Your task to perform on an android device: turn on showing notifications on the lock screen Image 0: 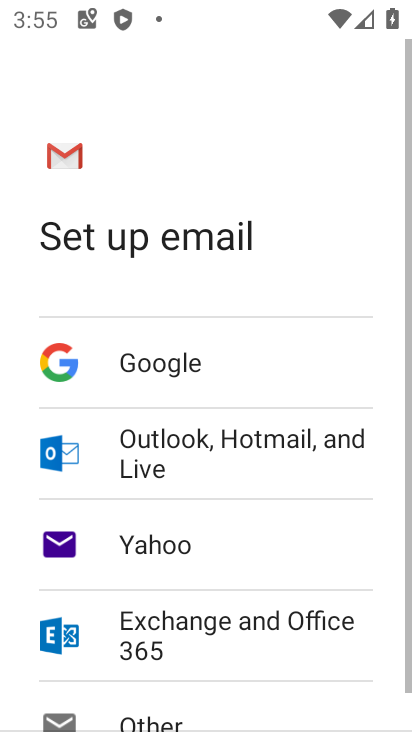
Step 0: press home button
Your task to perform on an android device: turn on showing notifications on the lock screen Image 1: 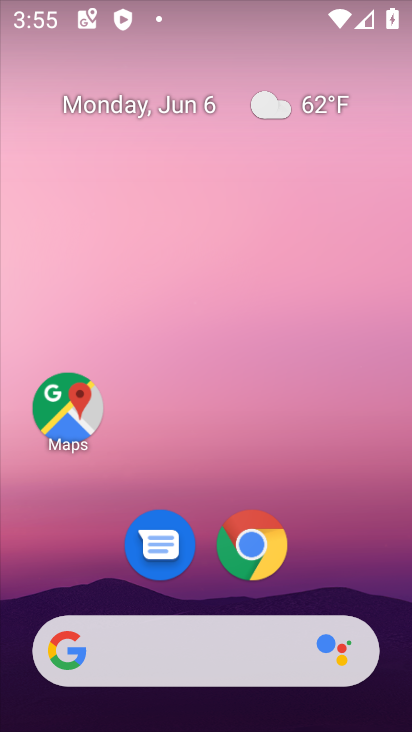
Step 1: drag from (193, 711) to (204, 63)
Your task to perform on an android device: turn on showing notifications on the lock screen Image 2: 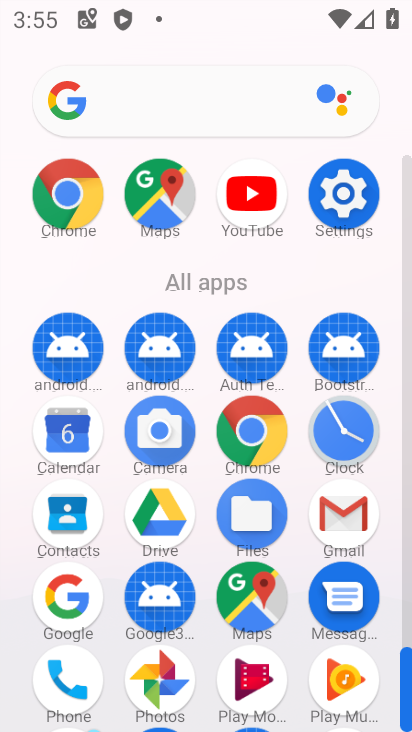
Step 2: click (338, 193)
Your task to perform on an android device: turn on showing notifications on the lock screen Image 3: 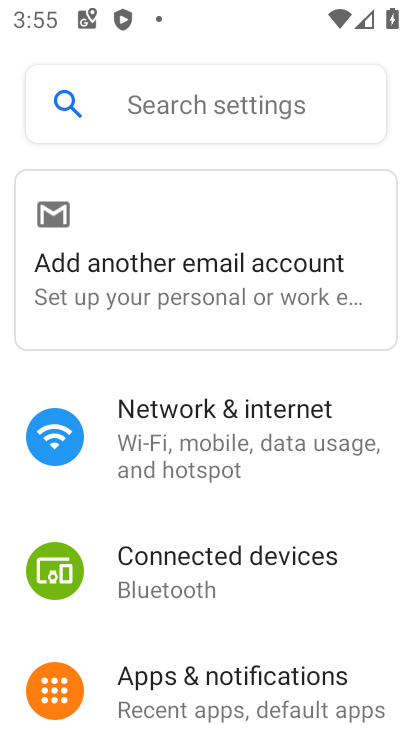
Step 3: click (220, 685)
Your task to perform on an android device: turn on showing notifications on the lock screen Image 4: 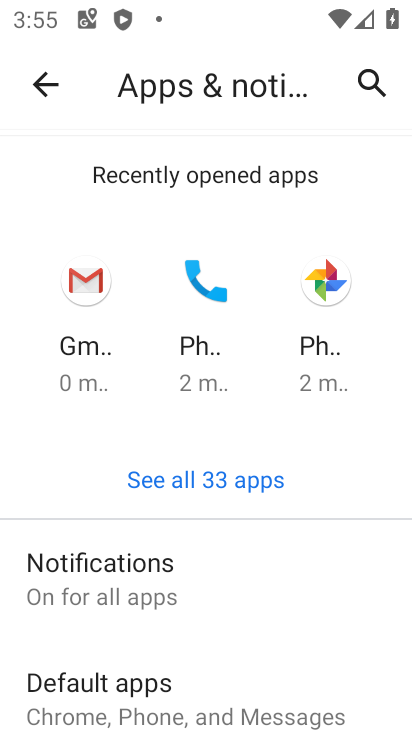
Step 4: click (122, 580)
Your task to perform on an android device: turn on showing notifications on the lock screen Image 5: 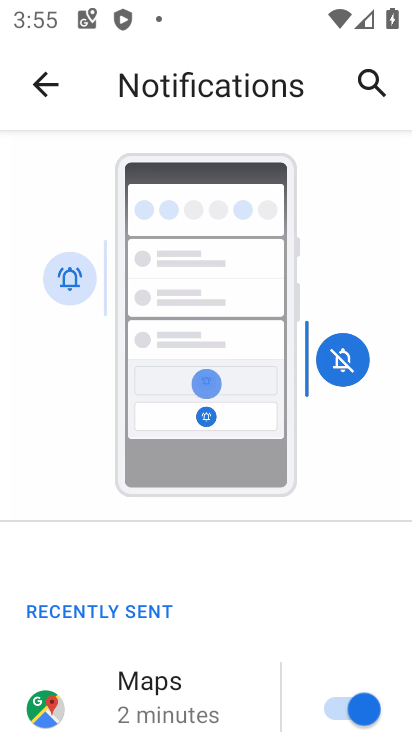
Step 5: drag from (231, 693) to (216, 293)
Your task to perform on an android device: turn on showing notifications on the lock screen Image 6: 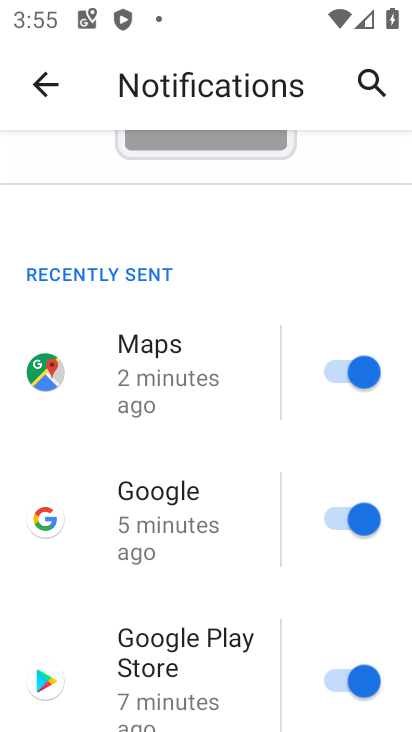
Step 6: drag from (198, 723) to (202, 261)
Your task to perform on an android device: turn on showing notifications on the lock screen Image 7: 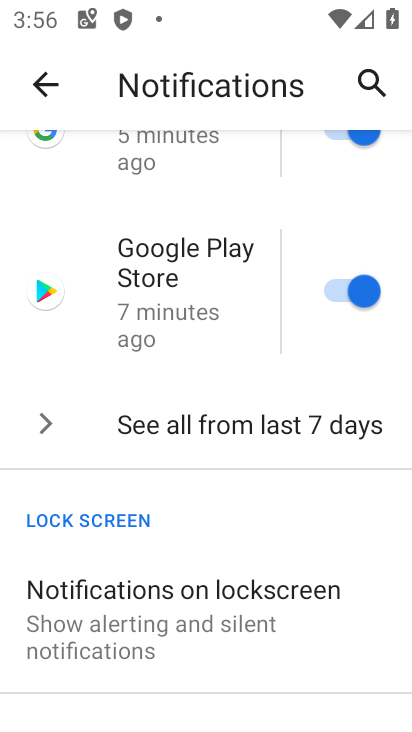
Step 7: click (157, 607)
Your task to perform on an android device: turn on showing notifications on the lock screen Image 8: 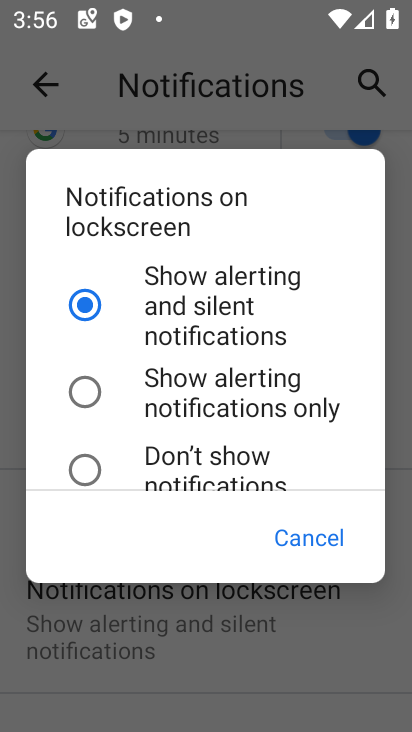
Step 8: click (299, 541)
Your task to perform on an android device: turn on showing notifications on the lock screen Image 9: 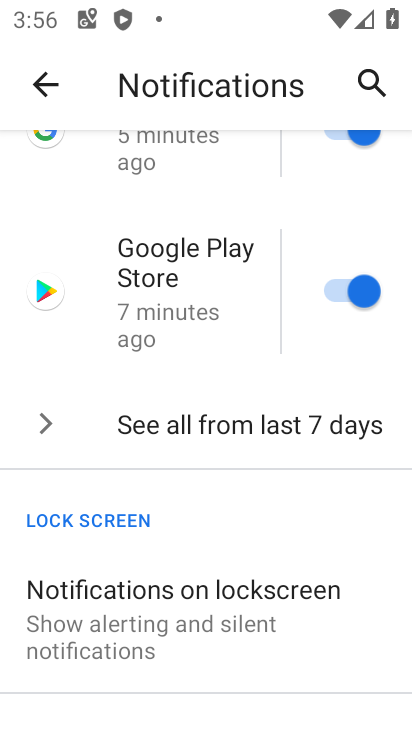
Step 9: drag from (254, 672) to (248, 385)
Your task to perform on an android device: turn on showing notifications on the lock screen Image 10: 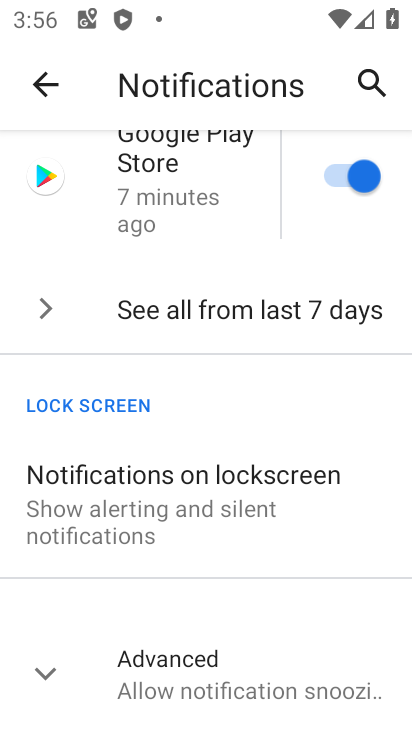
Step 10: click (142, 482)
Your task to perform on an android device: turn on showing notifications on the lock screen Image 11: 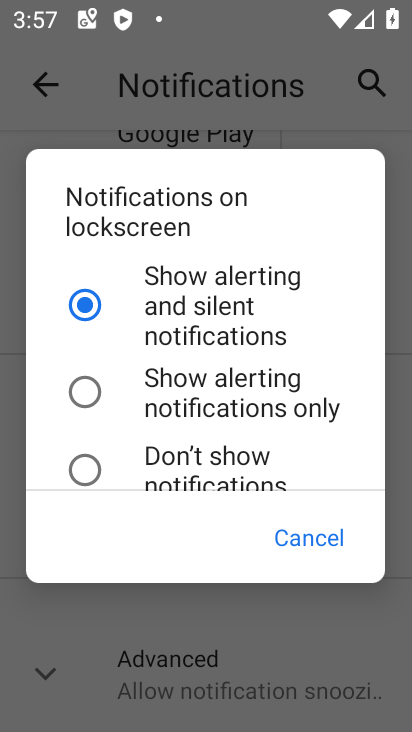
Step 11: click (306, 535)
Your task to perform on an android device: turn on showing notifications on the lock screen Image 12: 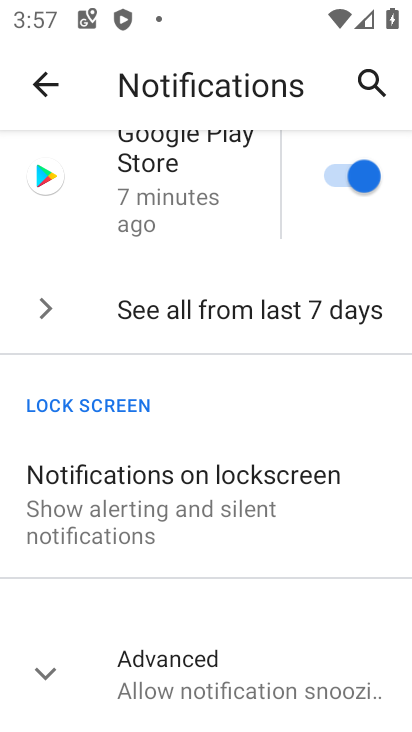
Step 12: task complete